Your task to perform on an android device: Show me recent news Image 0: 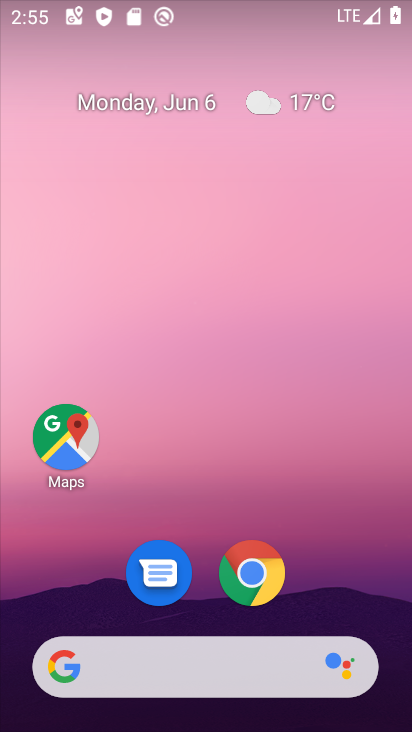
Step 0: drag from (0, 230) to (402, 344)
Your task to perform on an android device: Show me recent news Image 1: 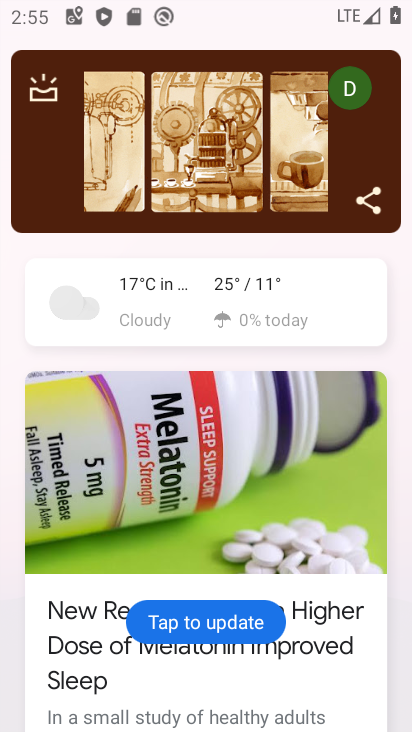
Step 1: task complete